Your task to perform on an android device: Do I have any events tomorrow? Image 0: 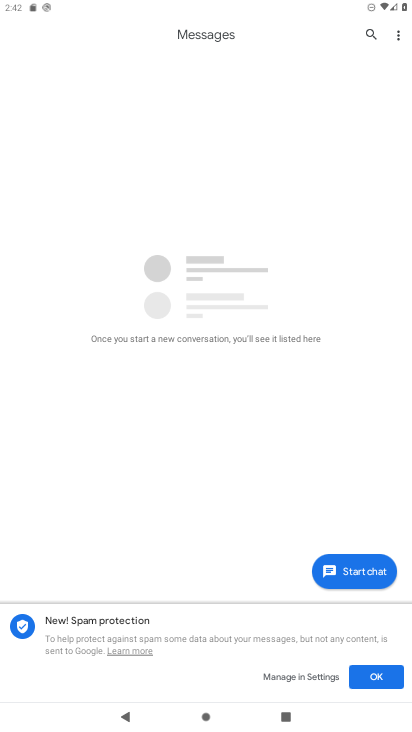
Step 0: press home button
Your task to perform on an android device: Do I have any events tomorrow? Image 1: 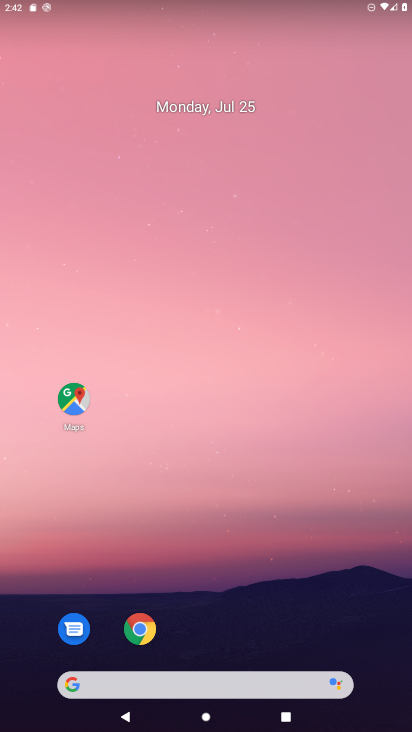
Step 1: drag from (298, 592) to (296, 0)
Your task to perform on an android device: Do I have any events tomorrow? Image 2: 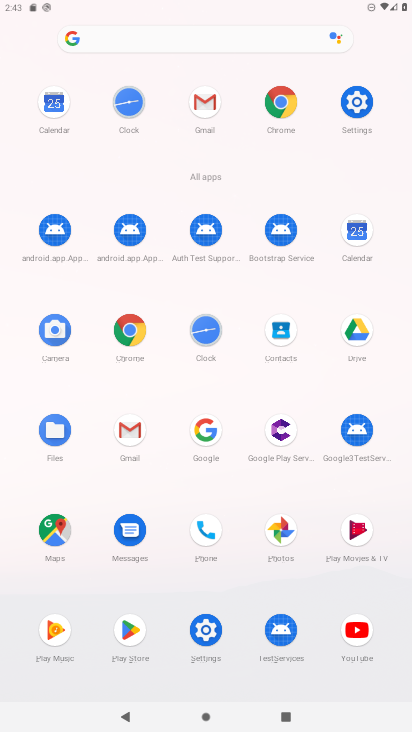
Step 2: click (352, 224)
Your task to perform on an android device: Do I have any events tomorrow? Image 3: 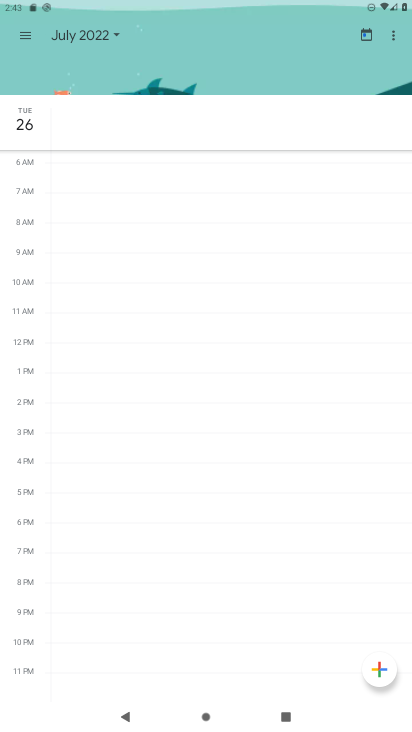
Step 3: click (59, 36)
Your task to perform on an android device: Do I have any events tomorrow? Image 4: 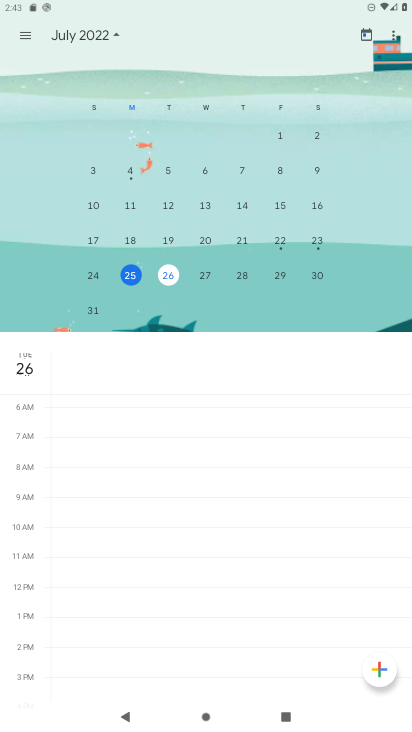
Step 4: click (165, 272)
Your task to perform on an android device: Do I have any events tomorrow? Image 5: 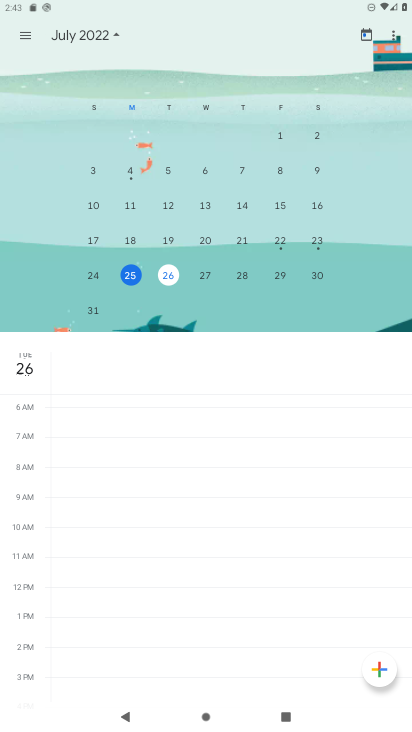
Step 5: task complete